Your task to perform on an android device: open app "Fetch Rewards" (install if not already installed), go to login, and select forgot password Image 0: 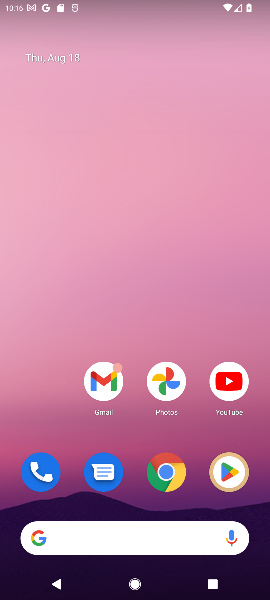
Step 0: click (235, 481)
Your task to perform on an android device: open app "Fetch Rewards" (install if not already installed), go to login, and select forgot password Image 1: 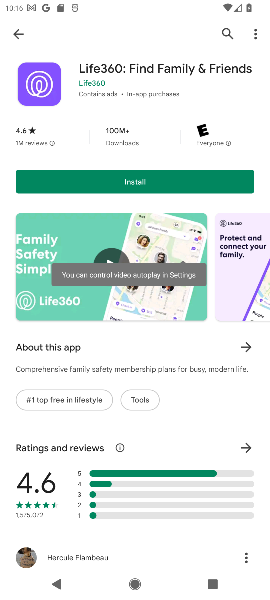
Step 1: click (230, 31)
Your task to perform on an android device: open app "Fetch Rewards" (install if not already installed), go to login, and select forgot password Image 2: 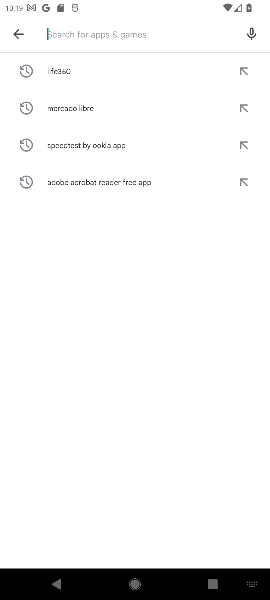
Step 2: type "fetch rewards"
Your task to perform on an android device: open app "Fetch Rewards" (install if not already installed), go to login, and select forgot password Image 3: 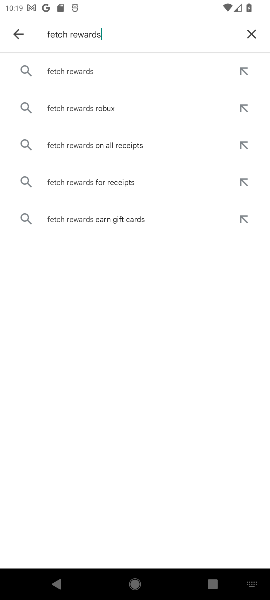
Step 3: click (92, 77)
Your task to perform on an android device: open app "Fetch Rewards" (install if not already installed), go to login, and select forgot password Image 4: 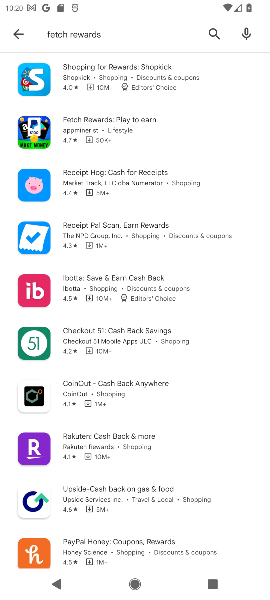
Step 4: click (159, 132)
Your task to perform on an android device: open app "Fetch Rewards" (install if not already installed), go to login, and select forgot password Image 5: 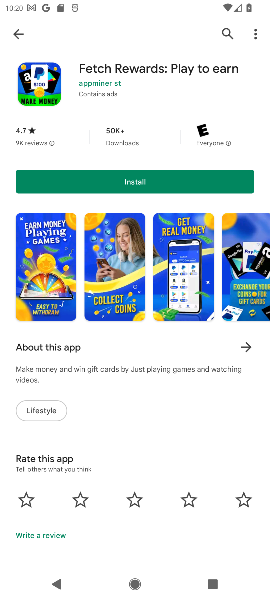
Step 5: click (194, 181)
Your task to perform on an android device: open app "Fetch Rewards" (install if not already installed), go to login, and select forgot password Image 6: 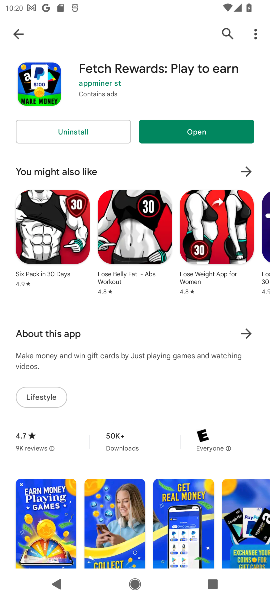
Step 6: click (176, 131)
Your task to perform on an android device: open app "Fetch Rewards" (install if not already installed), go to login, and select forgot password Image 7: 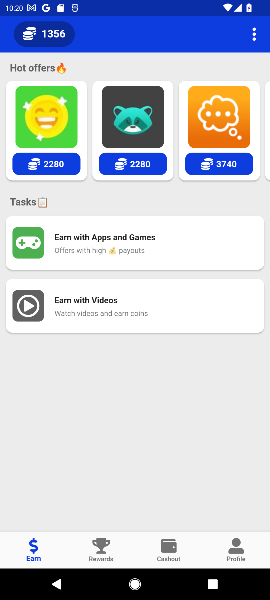
Step 7: click (236, 552)
Your task to perform on an android device: open app "Fetch Rewards" (install if not already installed), go to login, and select forgot password Image 8: 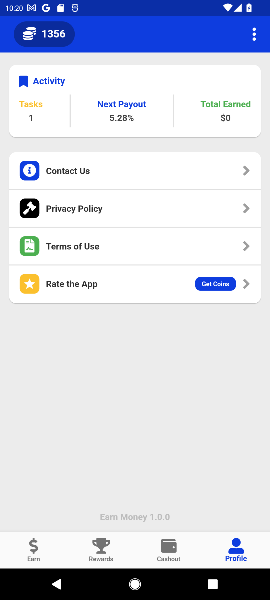
Step 8: click (254, 35)
Your task to perform on an android device: open app "Fetch Rewards" (install if not already installed), go to login, and select forgot password Image 9: 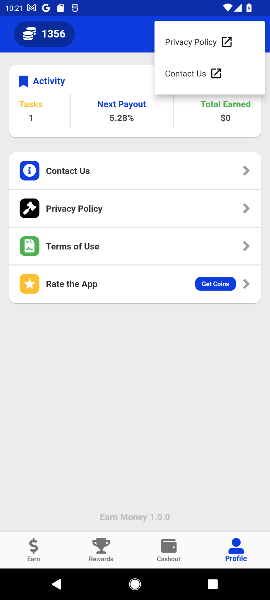
Step 9: task complete